Your task to perform on an android device: move an email to a new category in the gmail app Image 0: 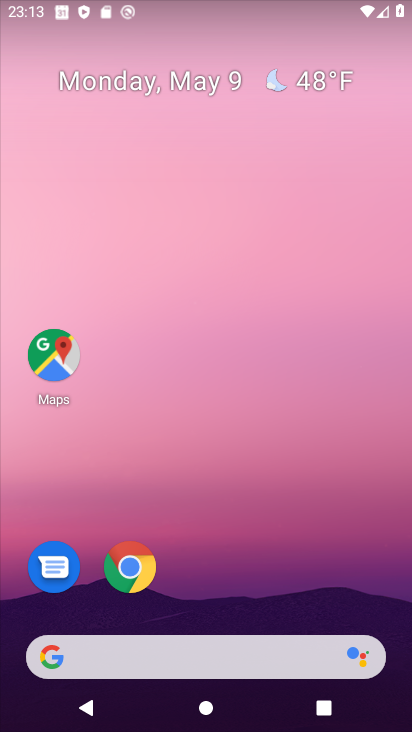
Step 0: drag from (245, 513) to (236, 69)
Your task to perform on an android device: move an email to a new category in the gmail app Image 1: 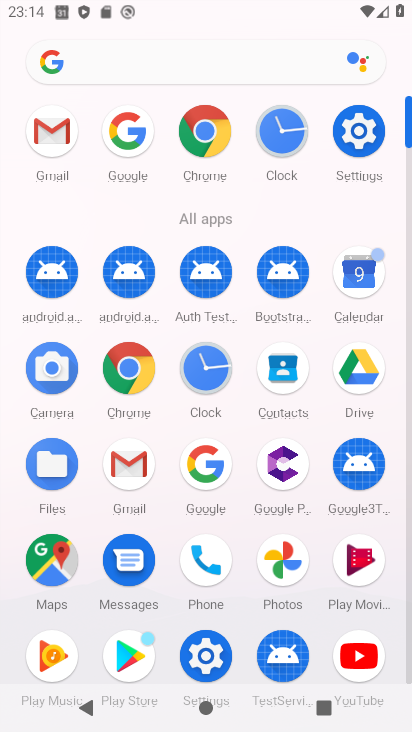
Step 1: click (51, 134)
Your task to perform on an android device: move an email to a new category in the gmail app Image 2: 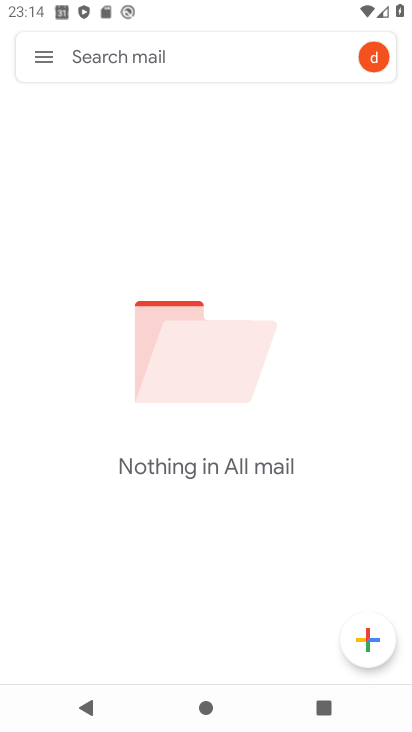
Step 2: click (37, 62)
Your task to perform on an android device: move an email to a new category in the gmail app Image 3: 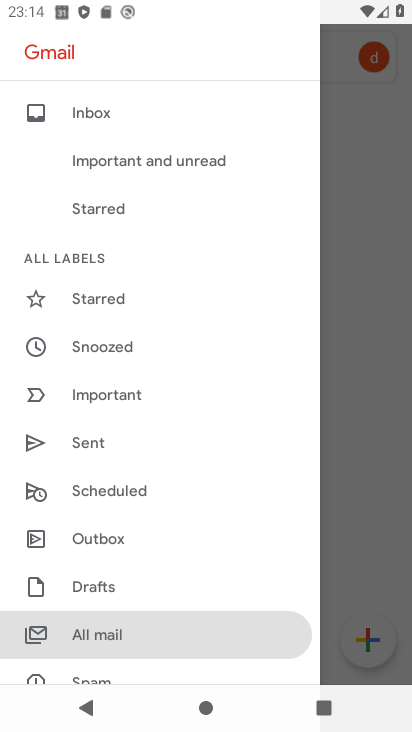
Step 3: click (82, 116)
Your task to perform on an android device: move an email to a new category in the gmail app Image 4: 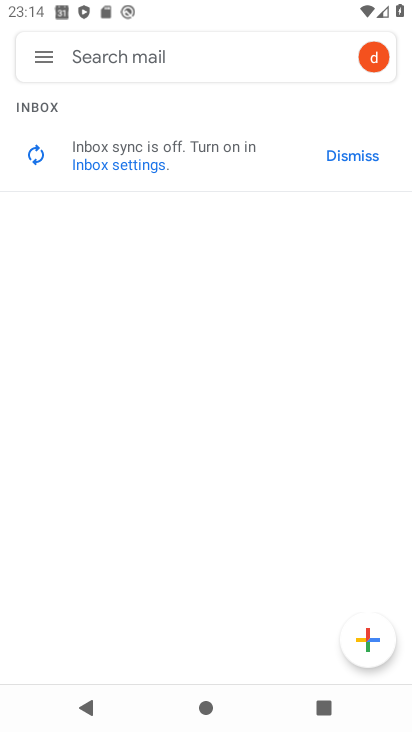
Step 4: click (50, 64)
Your task to perform on an android device: move an email to a new category in the gmail app Image 5: 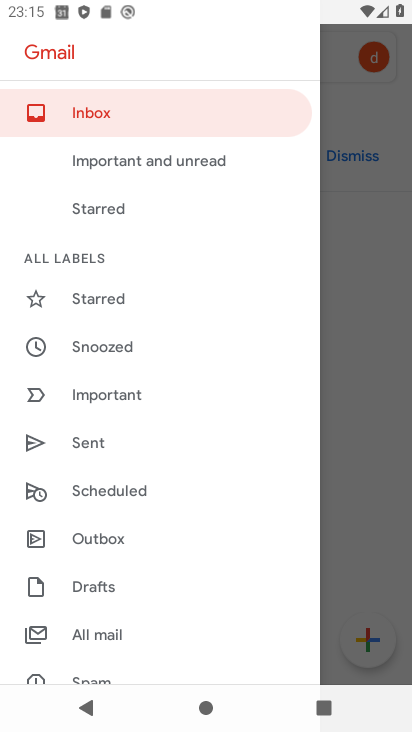
Step 5: task complete